Your task to perform on an android device: Open the Play Movies app and select the watchlist tab. Image 0: 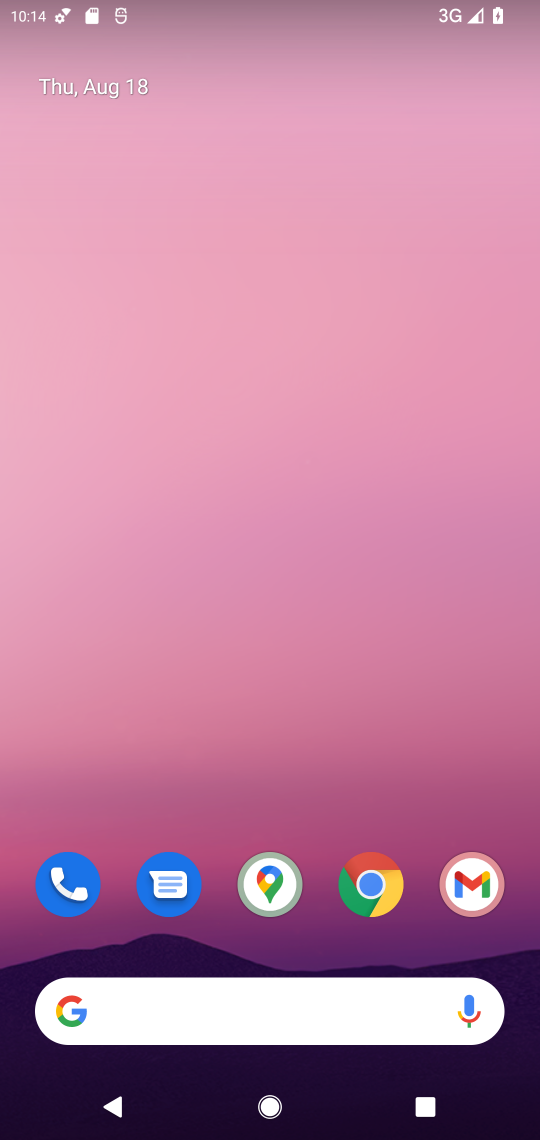
Step 0: drag from (295, 951) to (117, 131)
Your task to perform on an android device: Open the Play Movies app and select the watchlist tab. Image 1: 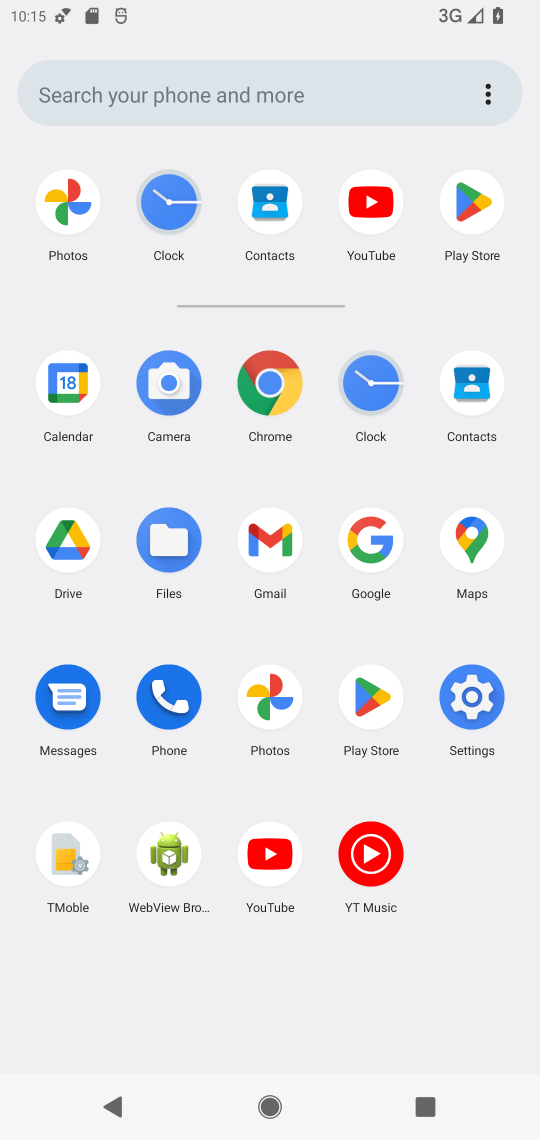
Step 1: task complete